Your task to perform on an android device: When is my next appointment? Image 0: 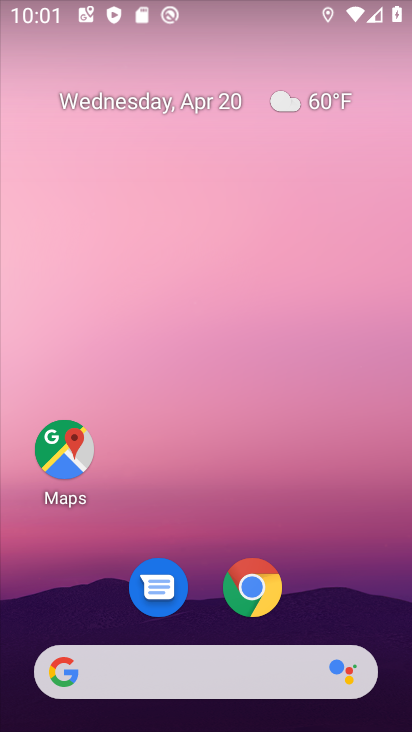
Step 0: drag from (291, 438) to (142, 111)
Your task to perform on an android device: When is my next appointment? Image 1: 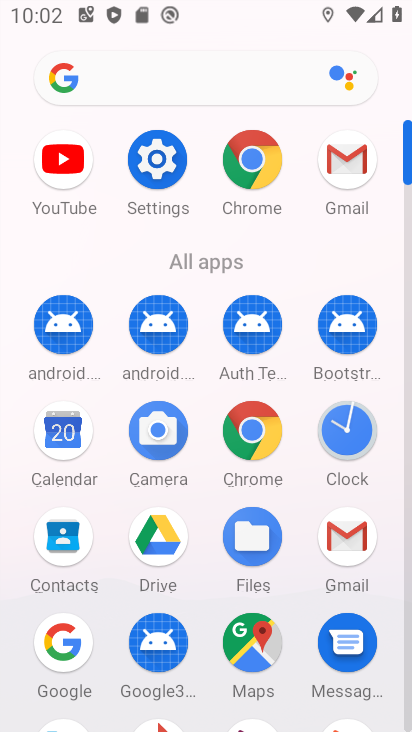
Step 1: click (58, 431)
Your task to perform on an android device: When is my next appointment? Image 2: 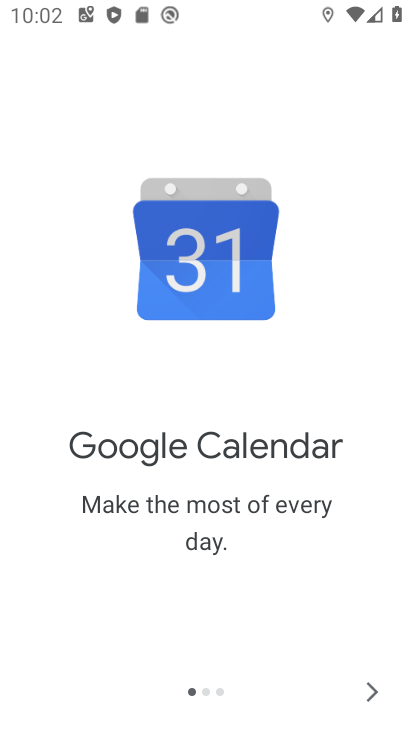
Step 2: click (362, 693)
Your task to perform on an android device: When is my next appointment? Image 3: 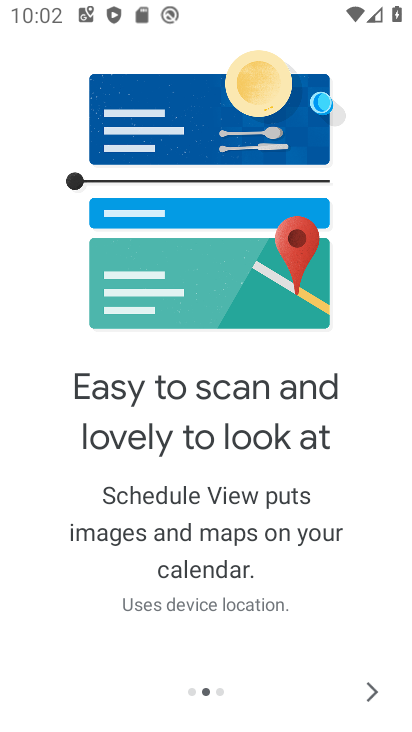
Step 3: click (368, 689)
Your task to perform on an android device: When is my next appointment? Image 4: 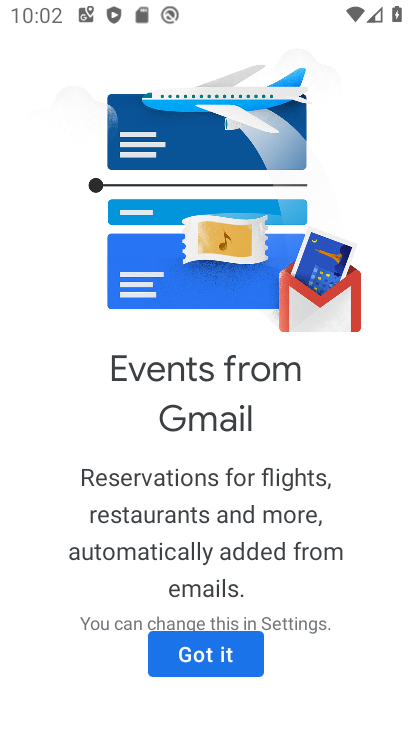
Step 4: click (205, 672)
Your task to perform on an android device: When is my next appointment? Image 5: 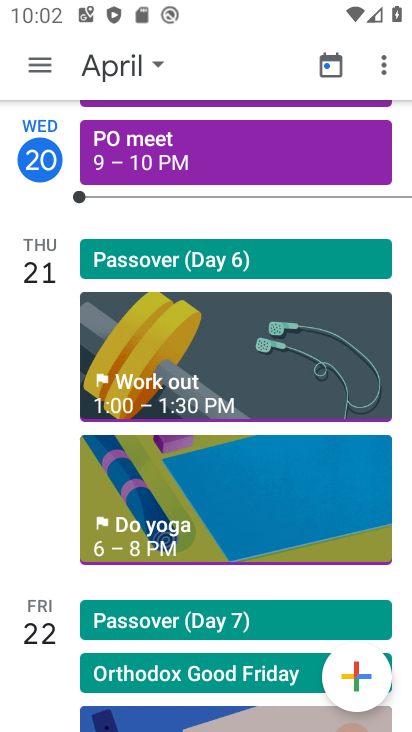
Step 5: task complete